Your task to perform on an android device: Go to ESPN.com Image 0: 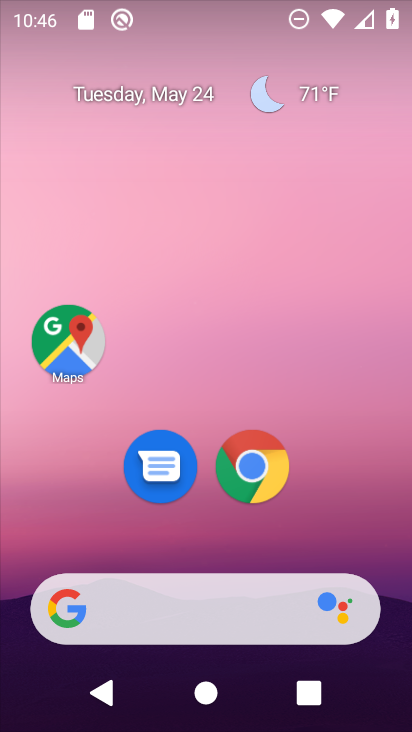
Step 0: click (277, 470)
Your task to perform on an android device: Go to ESPN.com Image 1: 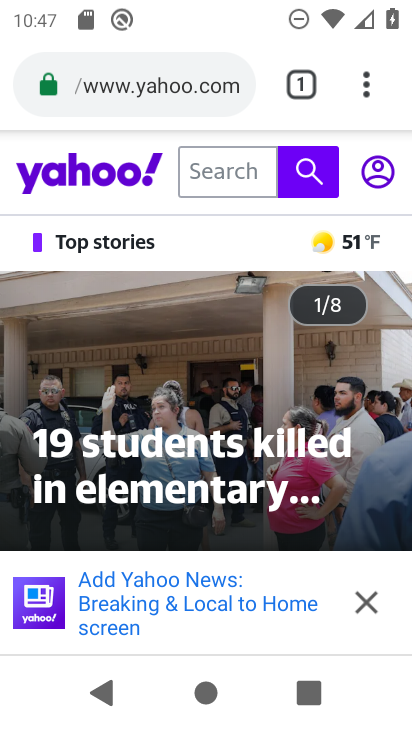
Step 1: click (179, 92)
Your task to perform on an android device: Go to ESPN.com Image 2: 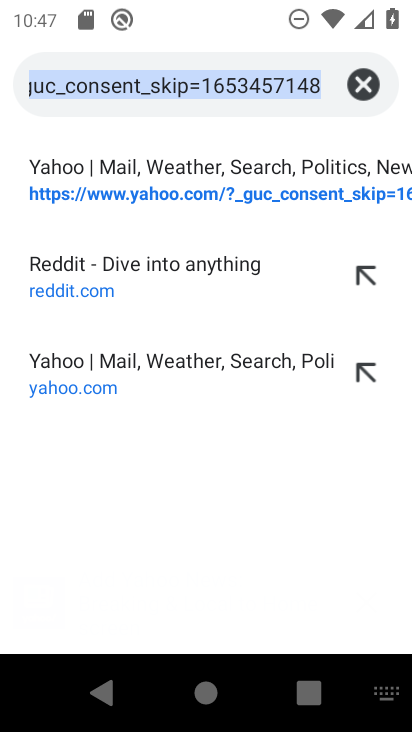
Step 2: type "ESPN.com"
Your task to perform on an android device: Go to ESPN.com Image 3: 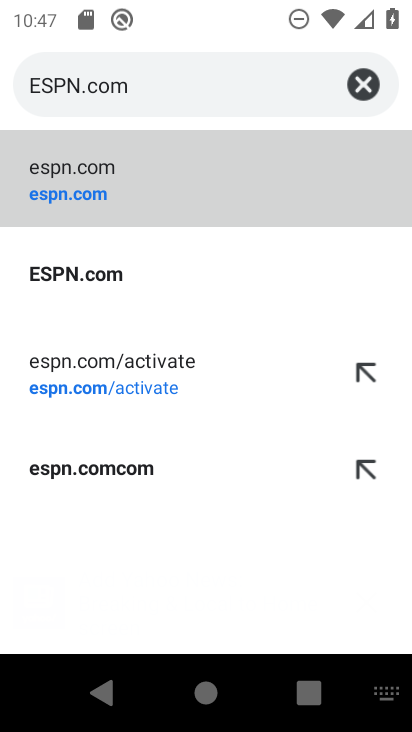
Step 3: click (159, 274)
Your task to perform on an android device: Go to ESPN.com Image 4: 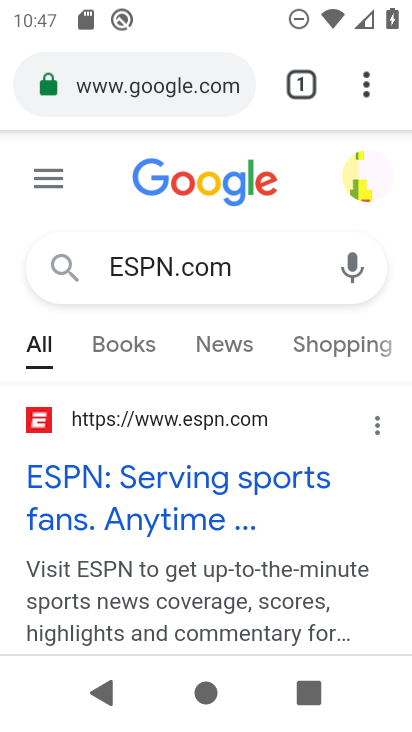
Step 4: task complete